Your task to perform on an android device: search for starred emails in the gmail app Image 0: 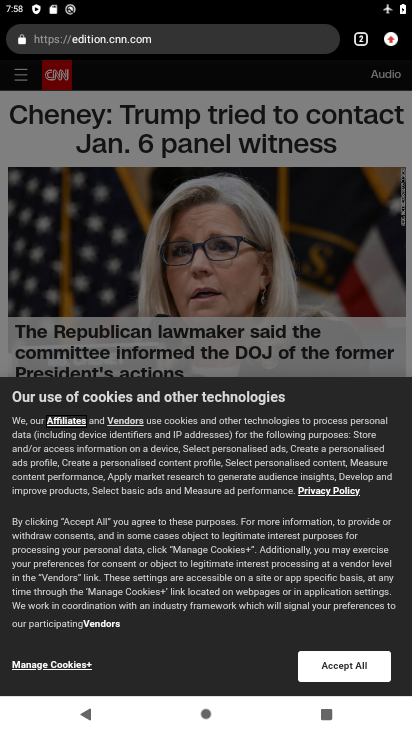
Step 0: press home button
Your task to perform on an android device: search for starred emails in the gmail app Image 1: 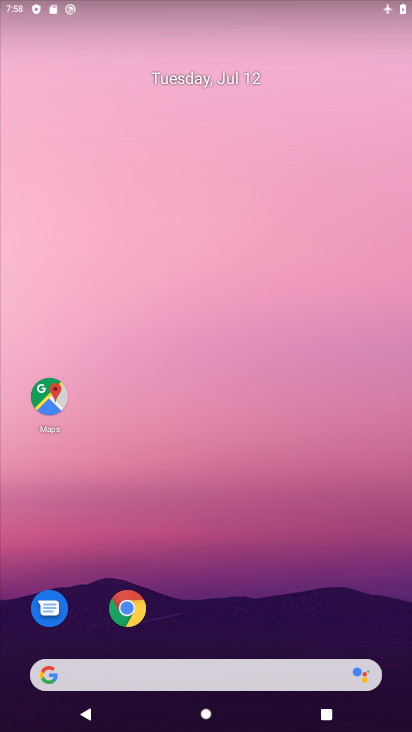
Step 1: drag from (209, 629) to (142, 92)
Your task to perform on an android device: search for starred emails in the gmail app Image 2: 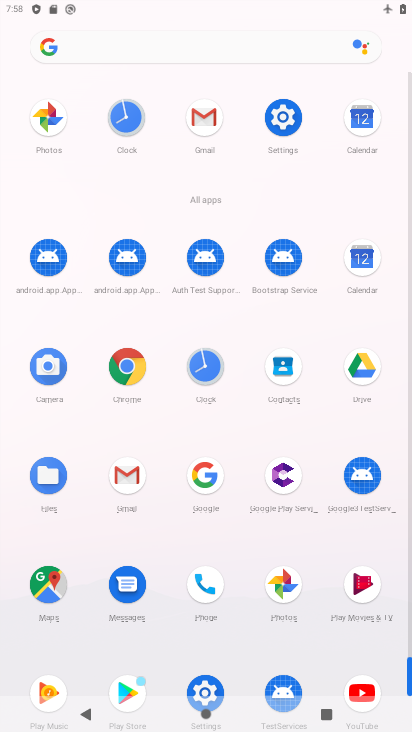
Step 2: click (125, 471)
Your task to perform on an android device: search for starred emails in the gmail app Image 3: 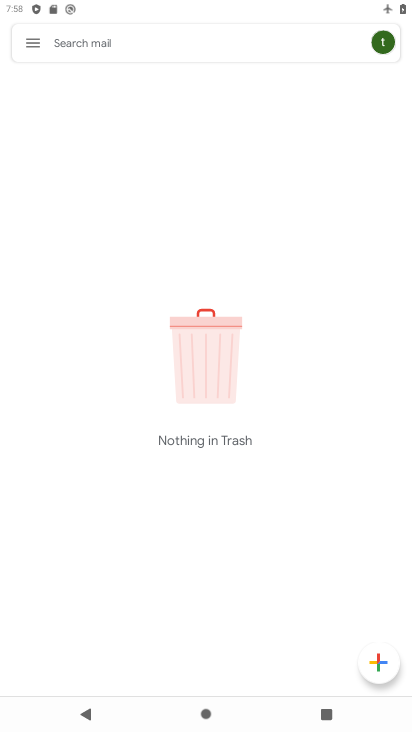
Step 3: click (25, 38)
Your task to perform on an android device: search for starred emails in the gmail app Image 4: 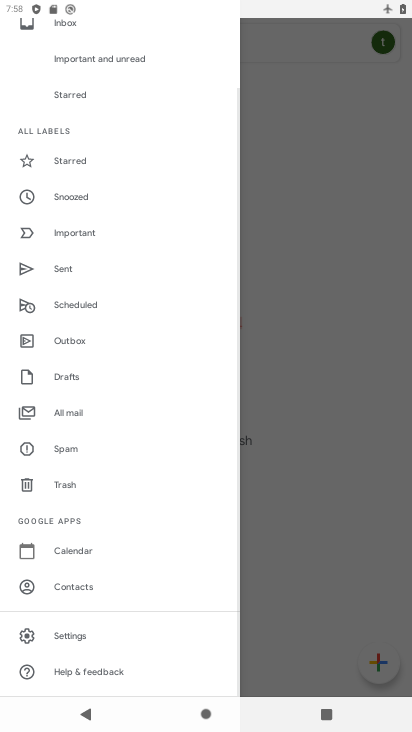
Step 4: click (61, 162)
Your task to perform on an android device: search for starred emails in the gmail app Image 5: 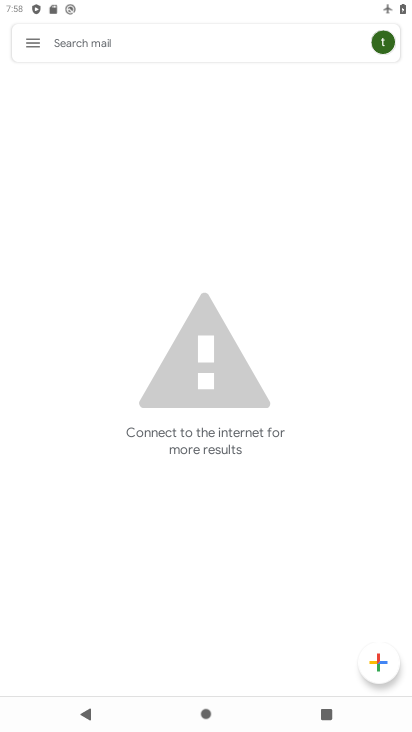
Step 5: task complete